Your task to perform on an android device: install app "Yahoo Mail" Image 0: 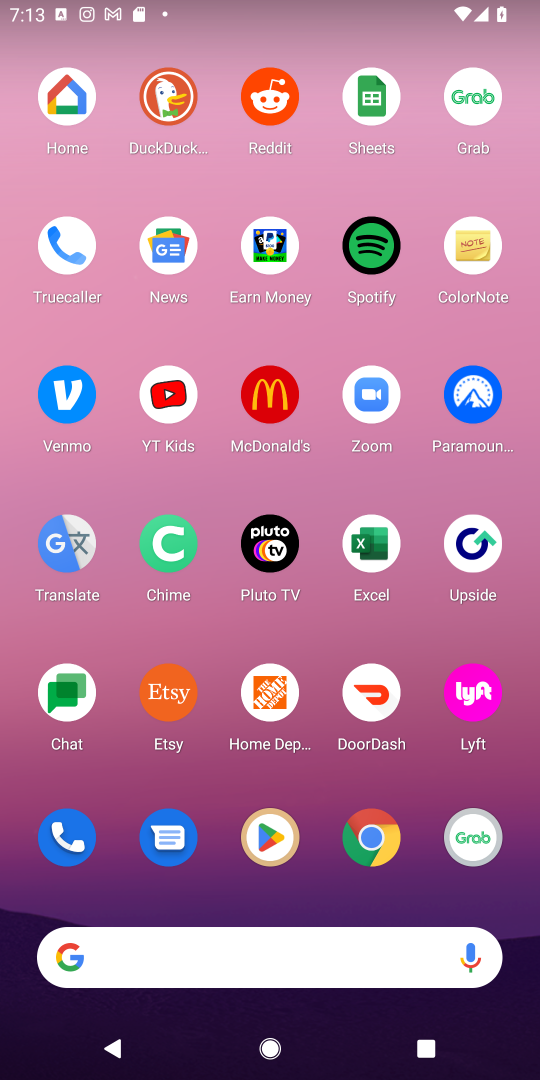
Step 0: press home button
Your task to perform on an android device: install app "Yahoo Mail" Image 1: 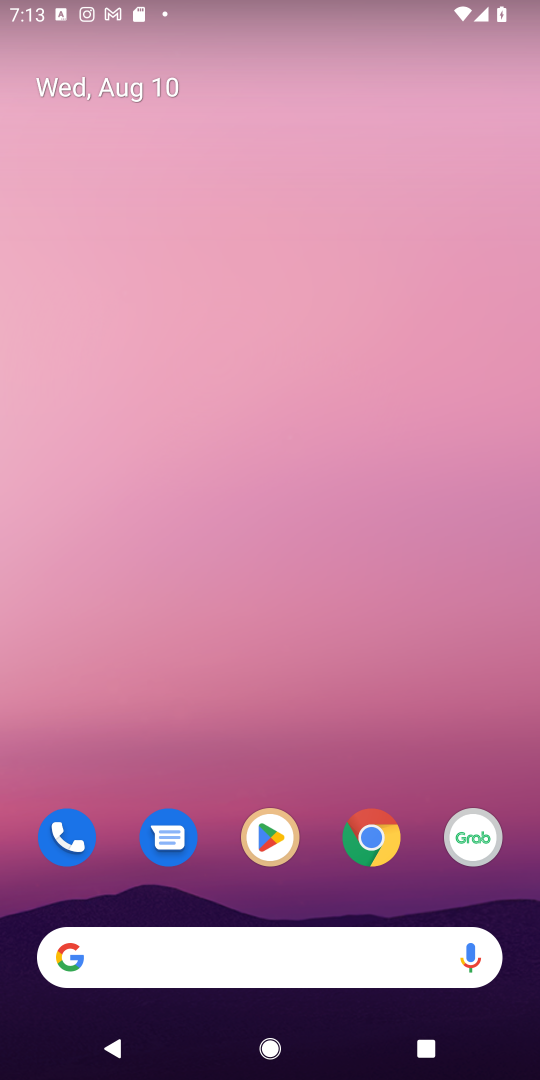
Step 1: click (270, 835)
Your task to perform on an android device: install app "Yahoo Mail" Image 2: 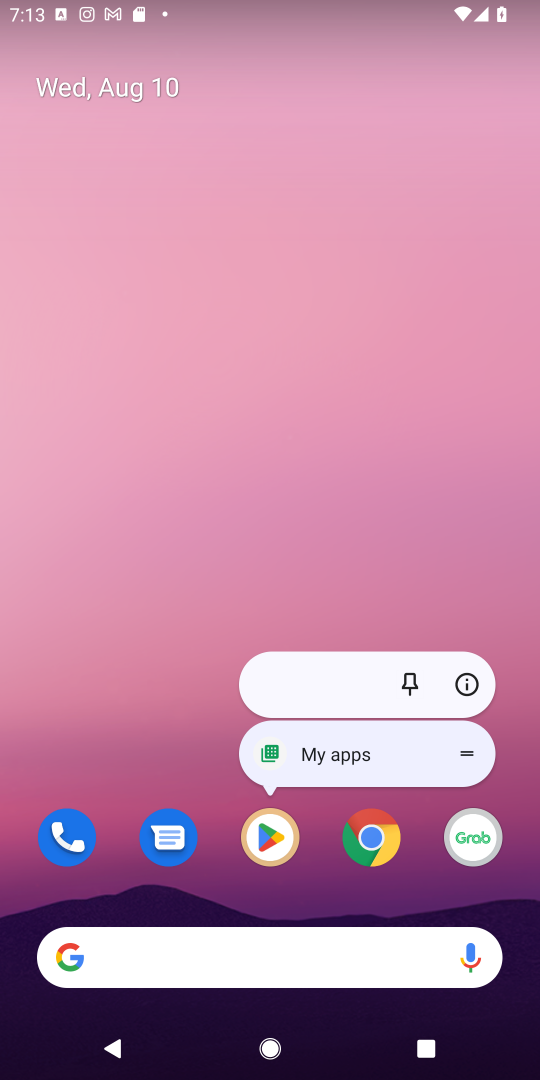
Step 2: click (270, 835)
Your task to perform on an android device: install app "Yahoo Mail" Image 3: 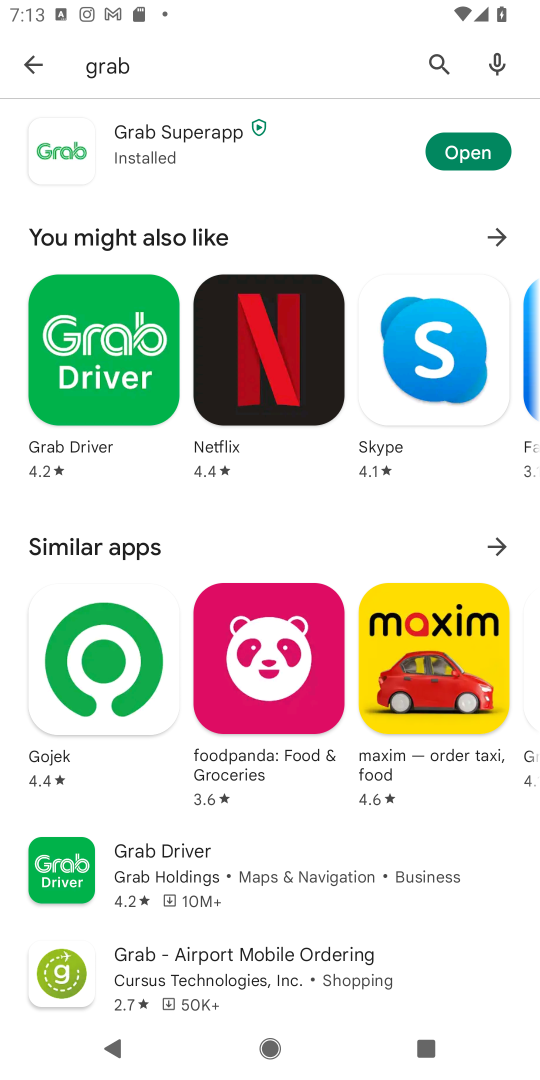
Step 3: click (432, 50)
Your task to perform on an android device: install app "Yahoo Mail" Image 4: 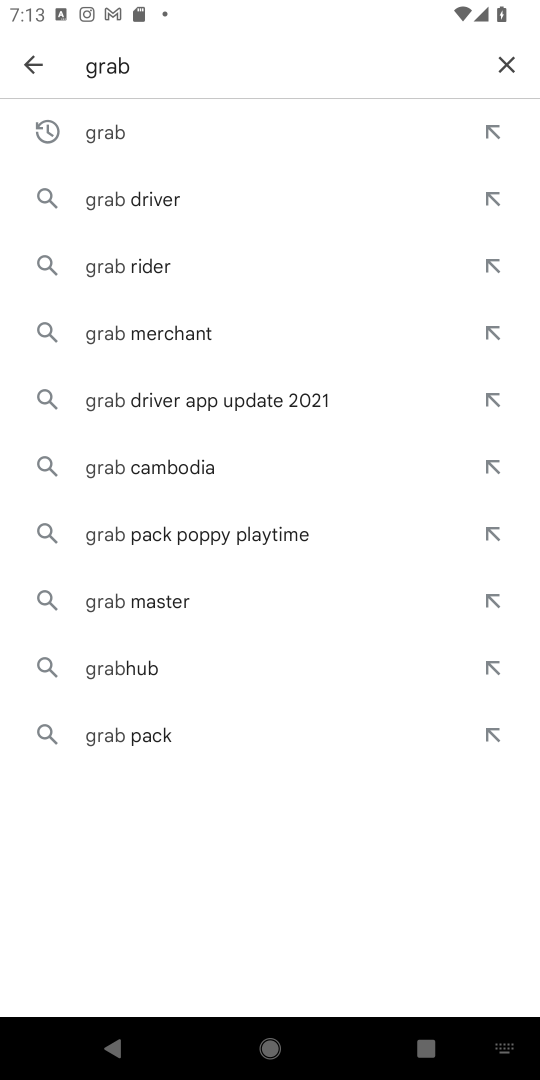
Step 4: click (502, 61)
Your task to perform on an android device: install app "Yahoo Mail" Image 5: 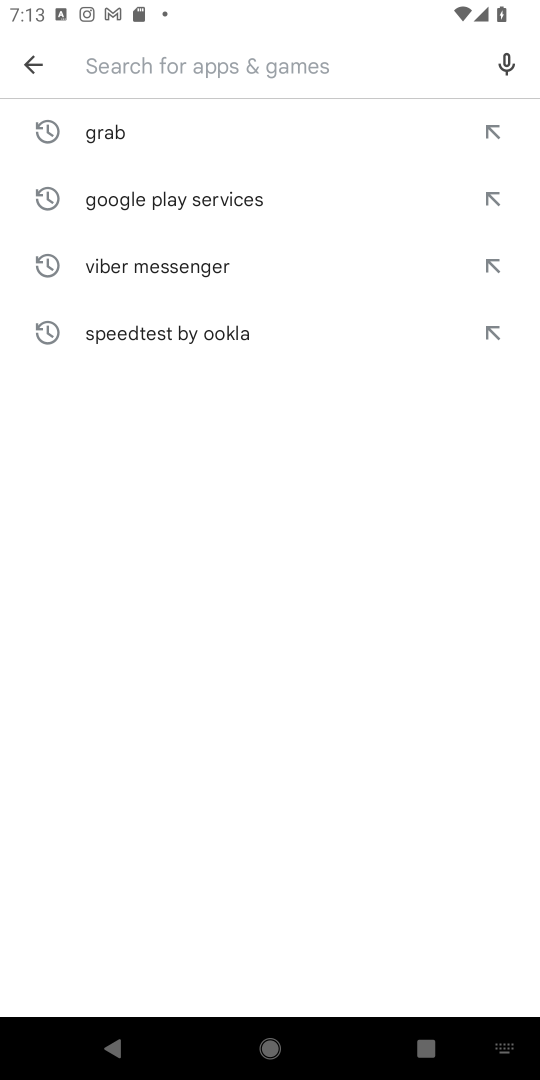
Step 5: type "Yahoo Mail"
Your task to perform on an android device: install app "Yahoo Mail" Image 6: 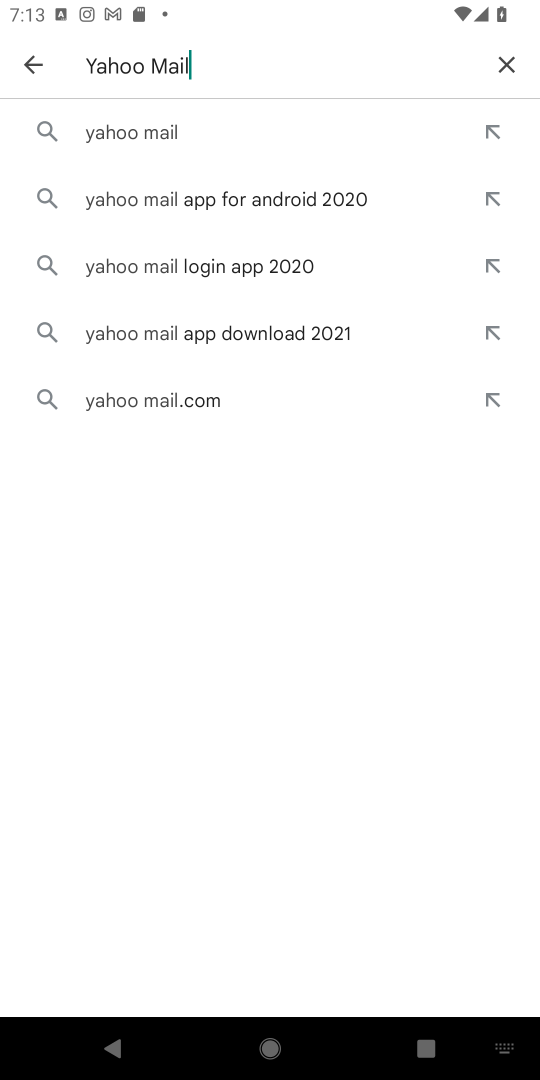
Step 6: click (145, 141)
Your task to perform on an android device: install app "Yahoo Mail" Image 7: 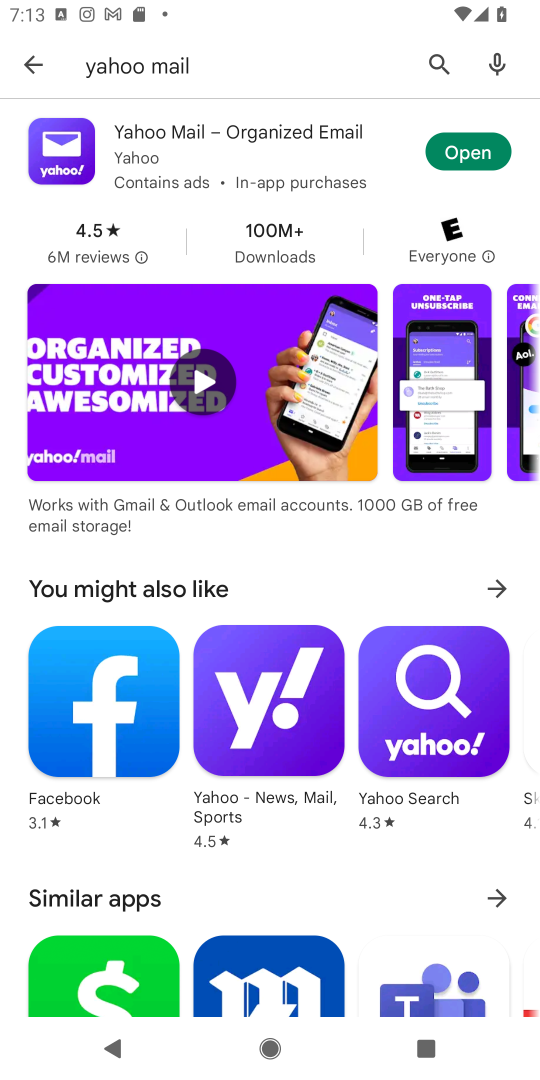
Step 7: task complete